Your task to perform on an android device: turn on priority inbox in the gmail app Image 0: 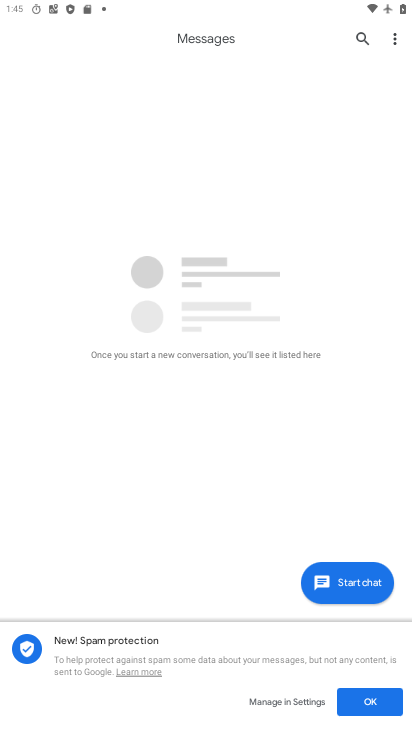
Step 0: press home button
Your task to perform on an android device: turn on priority inbox in the gmail app Image 1: 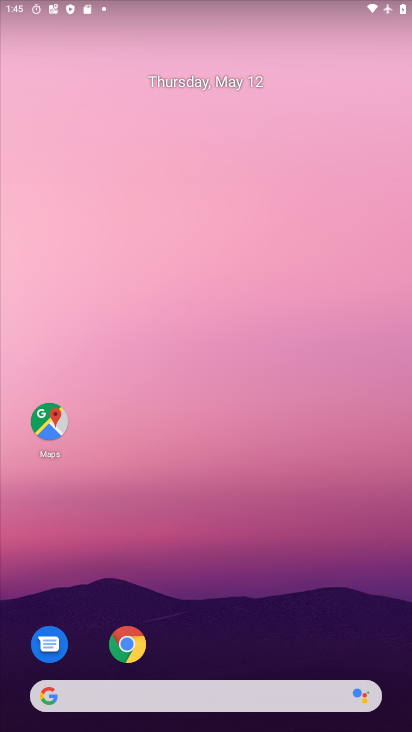
Step 1: drag from (252, 614) to (184, 43)
Your task to perform on an android device: turn on priority inbox in the gmail app Image 2: 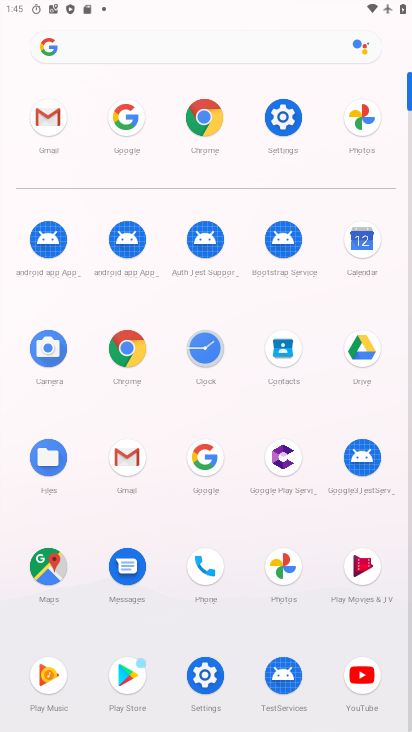
Step 2: click (130, 461)
Your task to perform on an android device: turn on priority inbox in the gmail app Image 3: 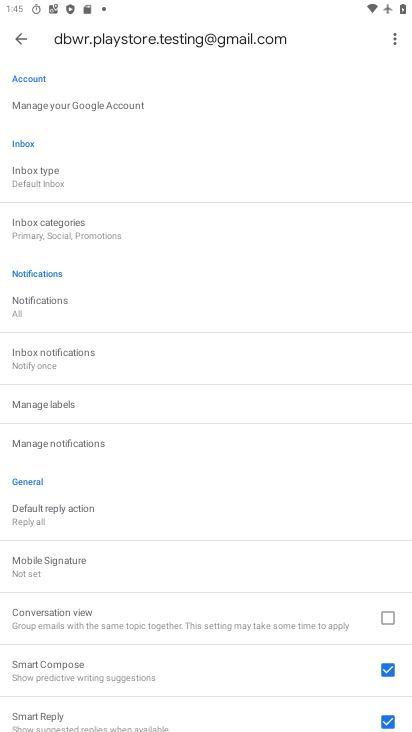
Step 3: click (107, 172)
Your task to perform on an android device: turn on priority inbox in the gmail app Image 4: 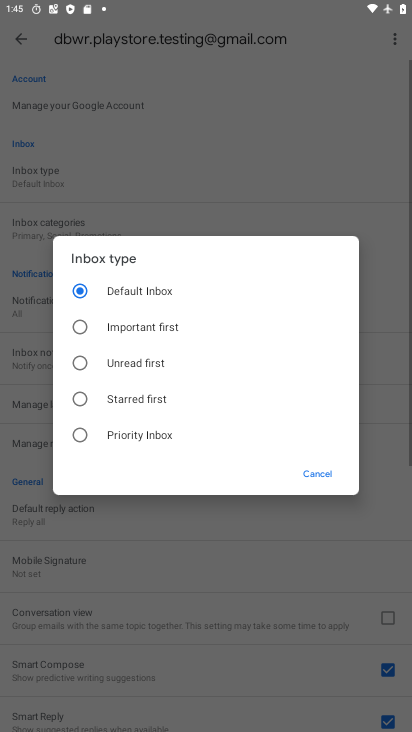
Step 4: click (156, 429)
Your task to perform on an android device: turn on priority inbox in the gmail app Image 5: 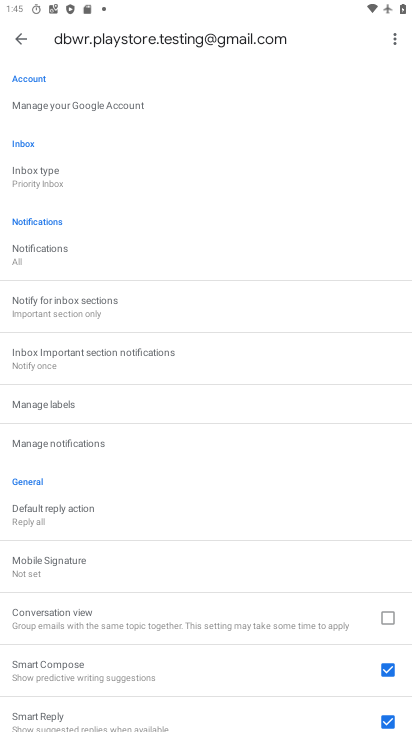
Step 5: task complete